Your task to perform on an android device: Add bose soundlink mini to the cart on amazon Image 0: 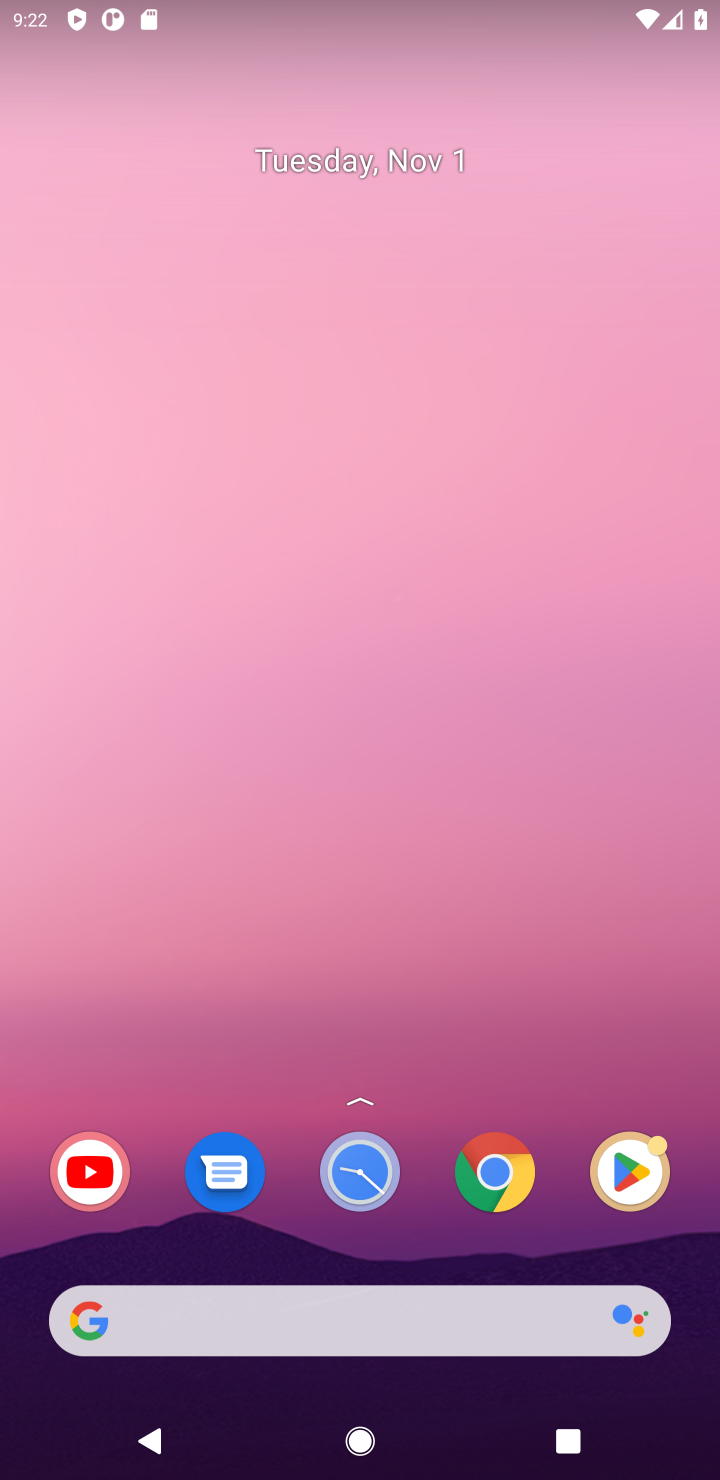
Step 0: press home button
Your task to perform on an android device: Add bose soundlink mini to the cart on amazon Image 1: 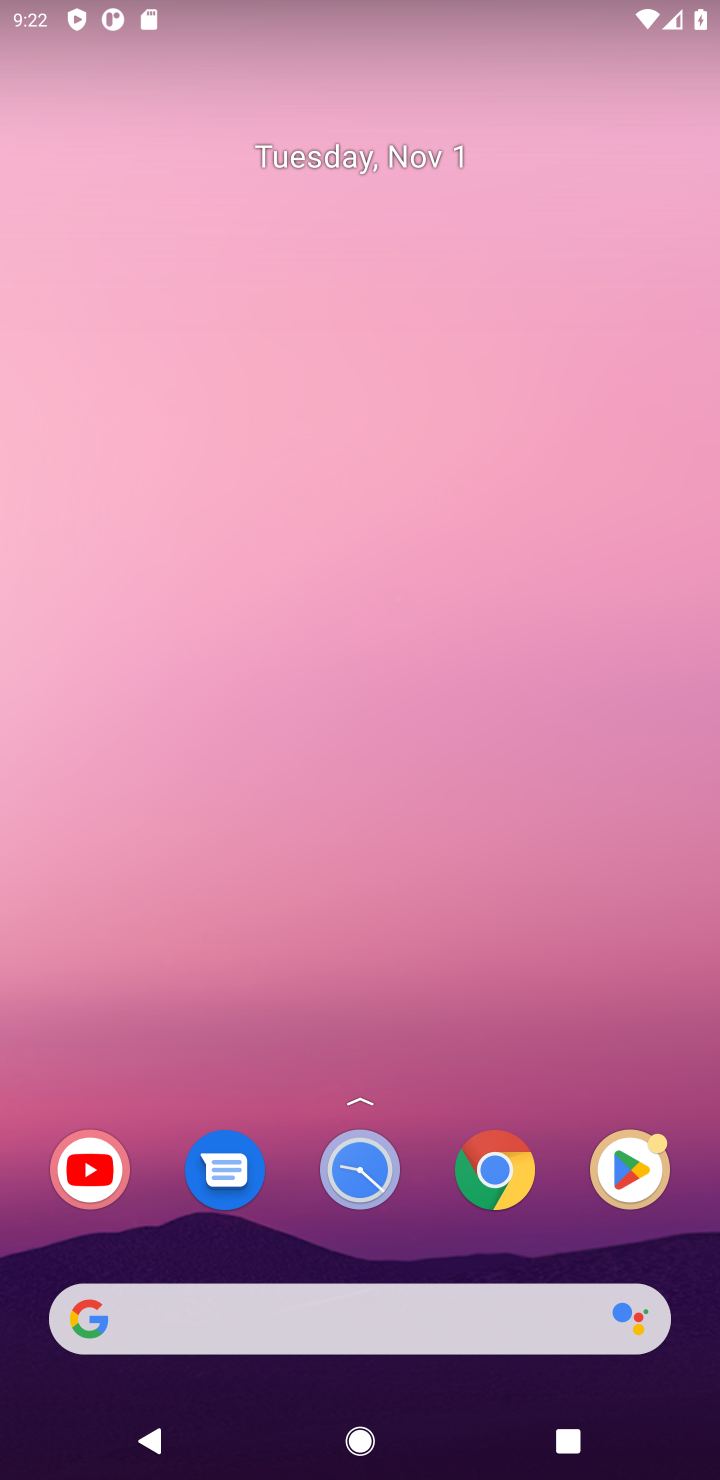
Step 1: drag from (419, 1114) to (438, 85)
Your task to perform on an android device: Add bose soundlink mini to the cart on amazon Image 2: 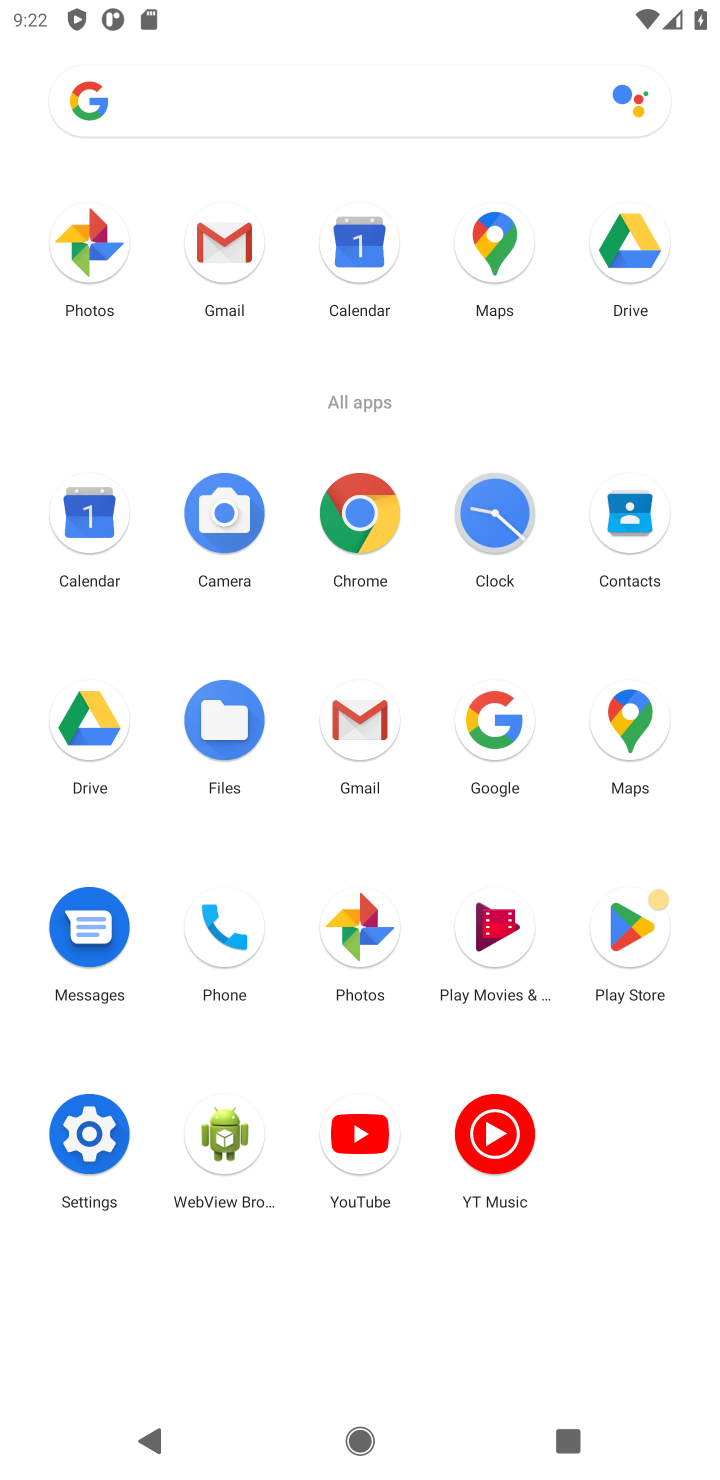
Step 2: click (362, 504)
Your task to perform on an android device: Add bose soundlink mini to the cart on amazon Image 3: 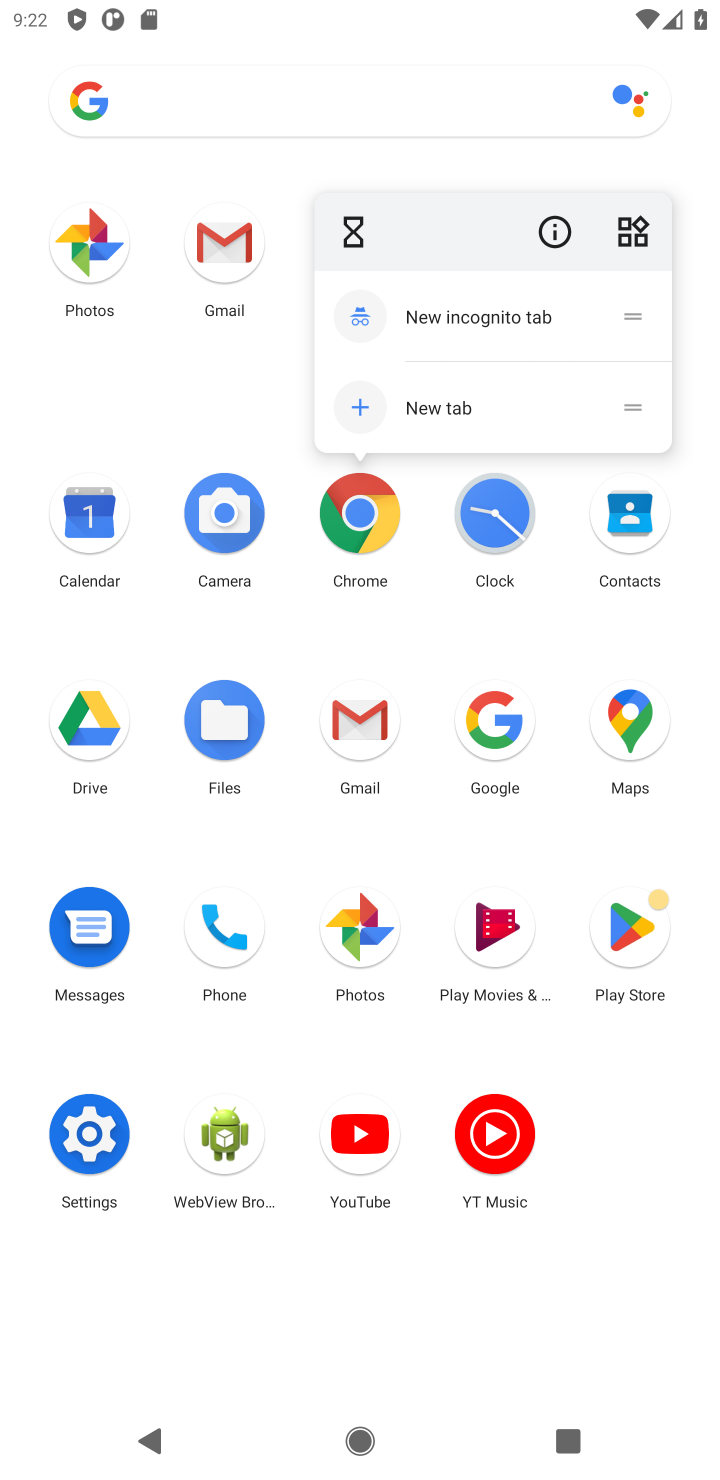
Step 3: click (357, 515)
Your task to perform on an android device: Add bose soundlink mini to the cart on amazon Image 4: 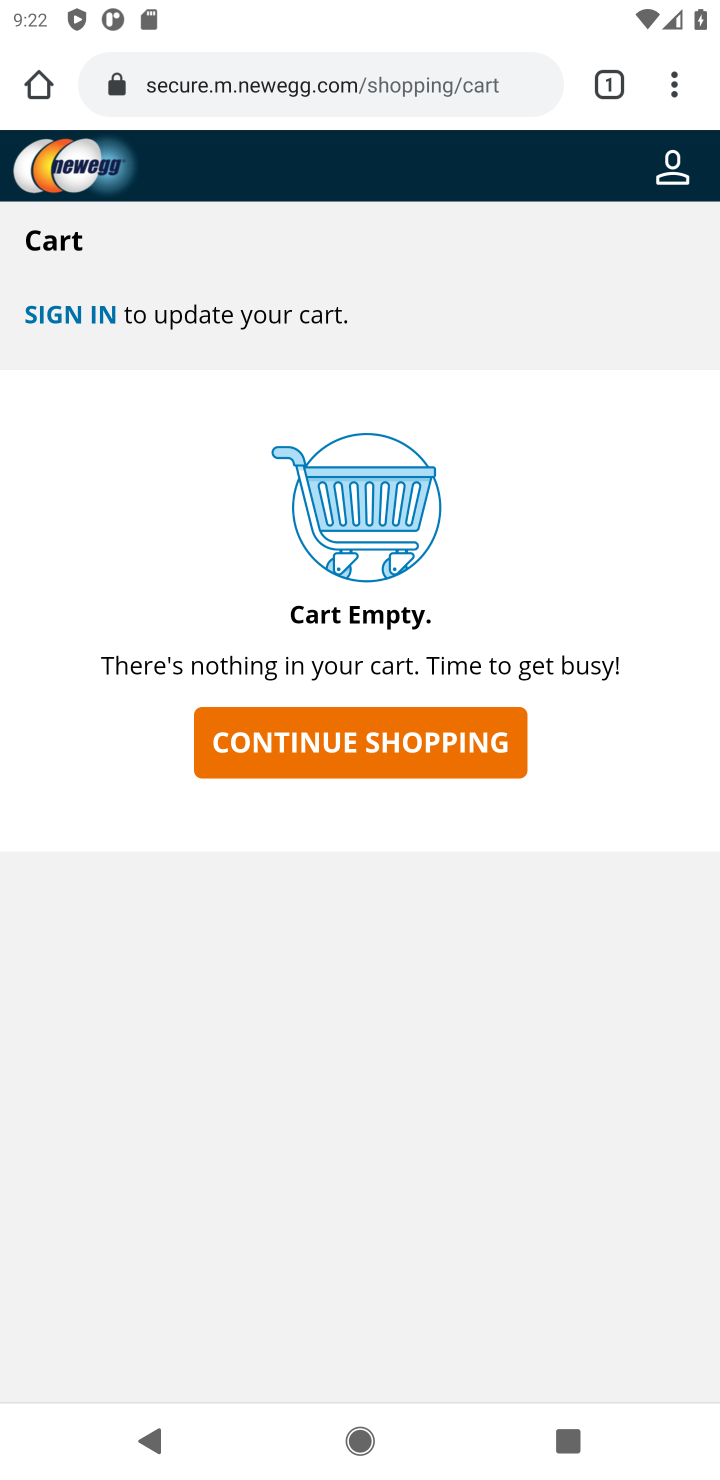
Step 4: click (316, 87)
Your task to perform on an android device: Add bose soundlink mini to the cart on amazon Image 5: 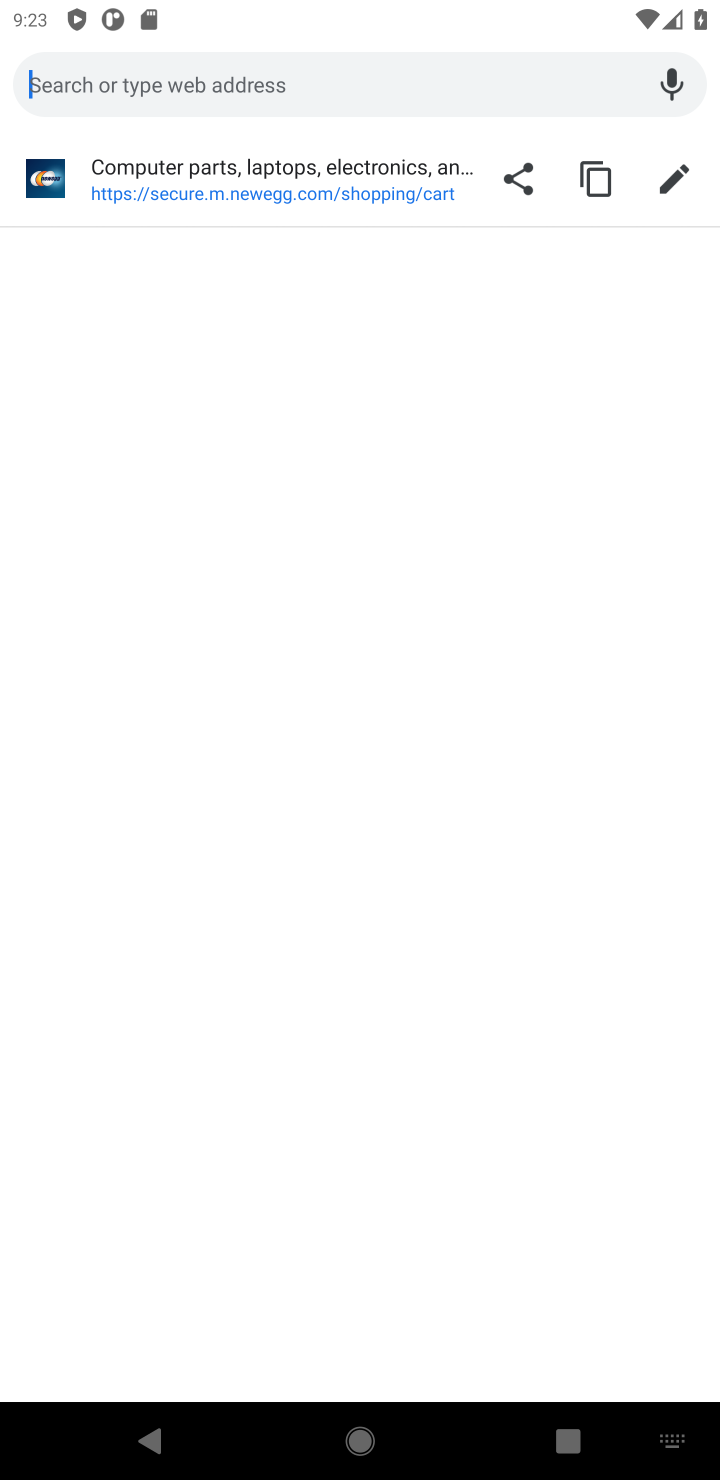
Step 5: type "amazon"
Your task to perform on an android device: Add bose soundlink mini to the cart on amazon Image 6: 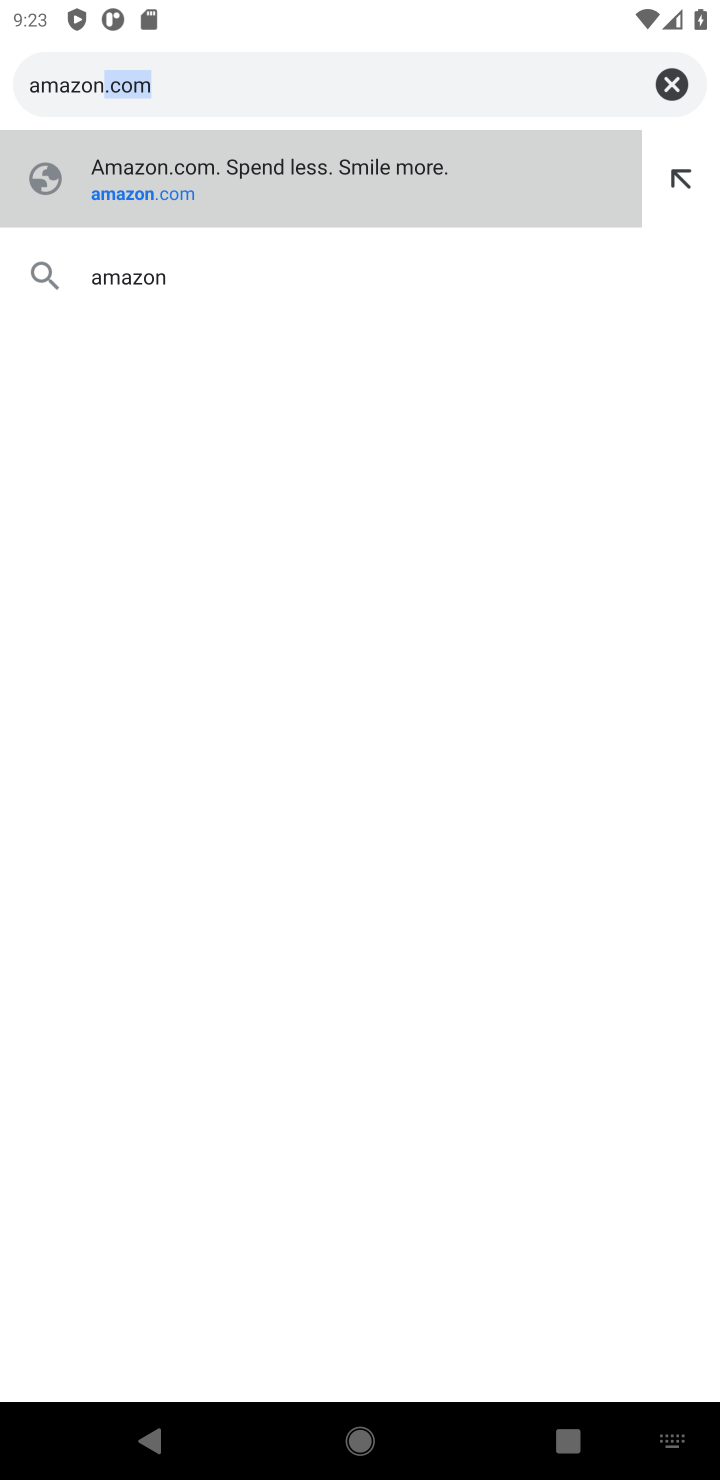
Step 6: click (231, 187)
Your task to perform on an android device: Add bose soundlink mini to the cart on amazon Image 7: 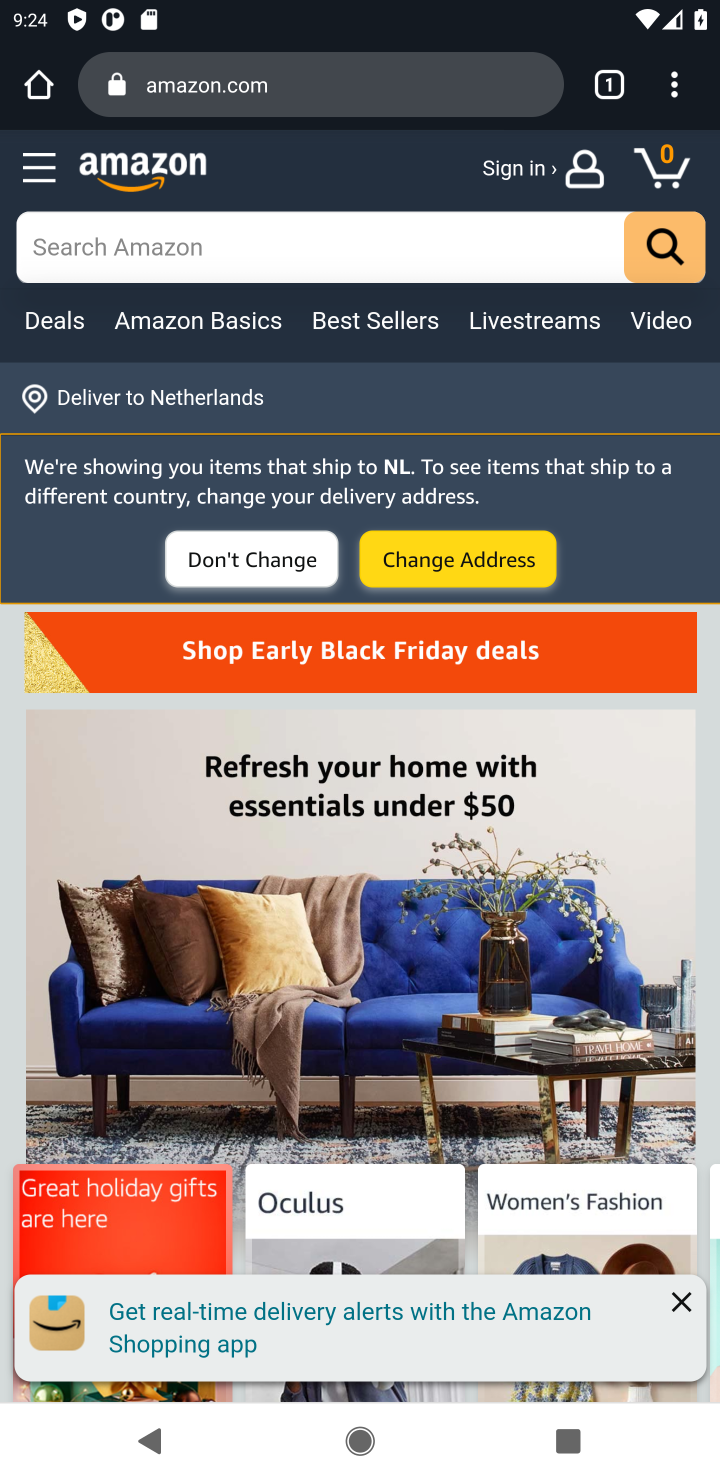
Step 7: click (244, 558)
Your task to perform on an android device: Add bose soundlink mini to the cart on amazon Image 8: 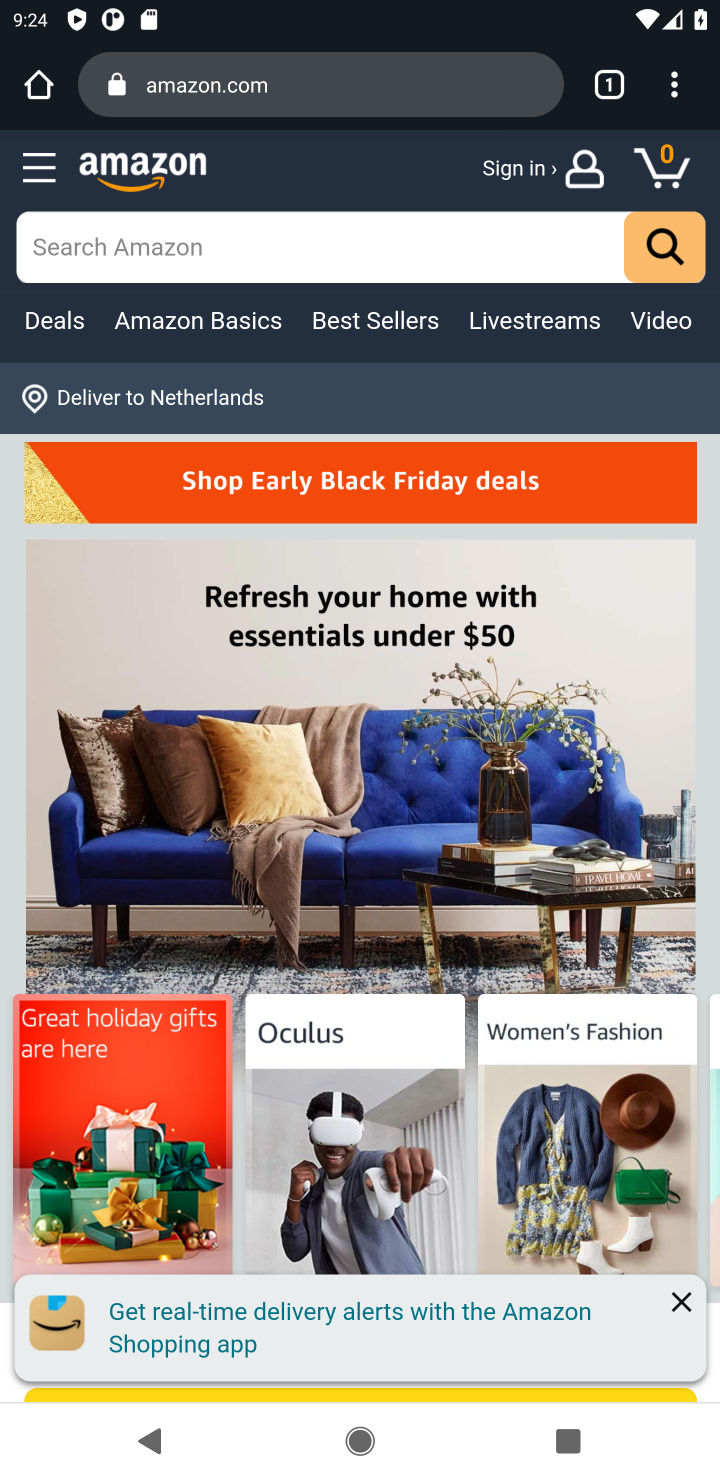
Step 8: click (197, 239)
Your task to perform on an android device: Add bose soundlink mini to the cart on amazon Image 9: 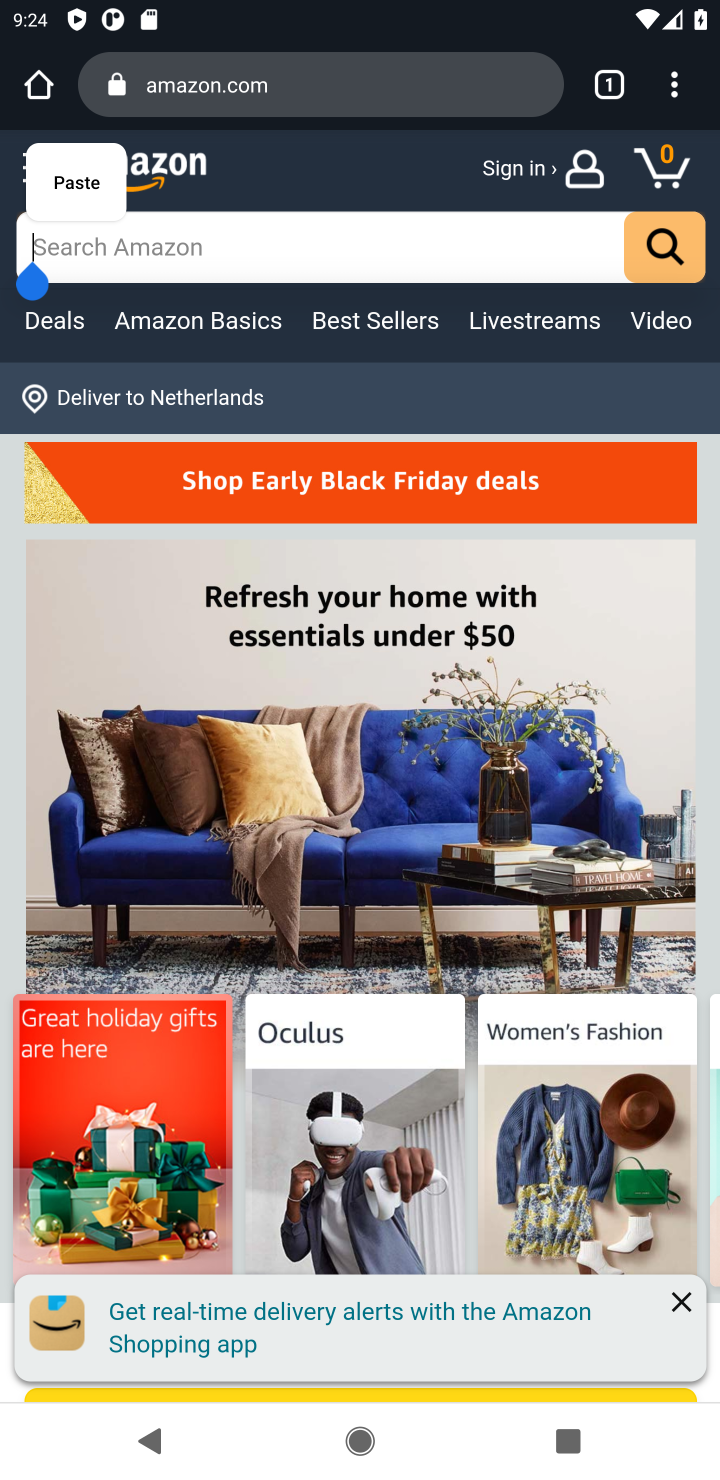
Step 9: type "bose soundlink mini"
Your task to perform on an android device: Add bose soundlink mini to the cart on amazon Image 10: 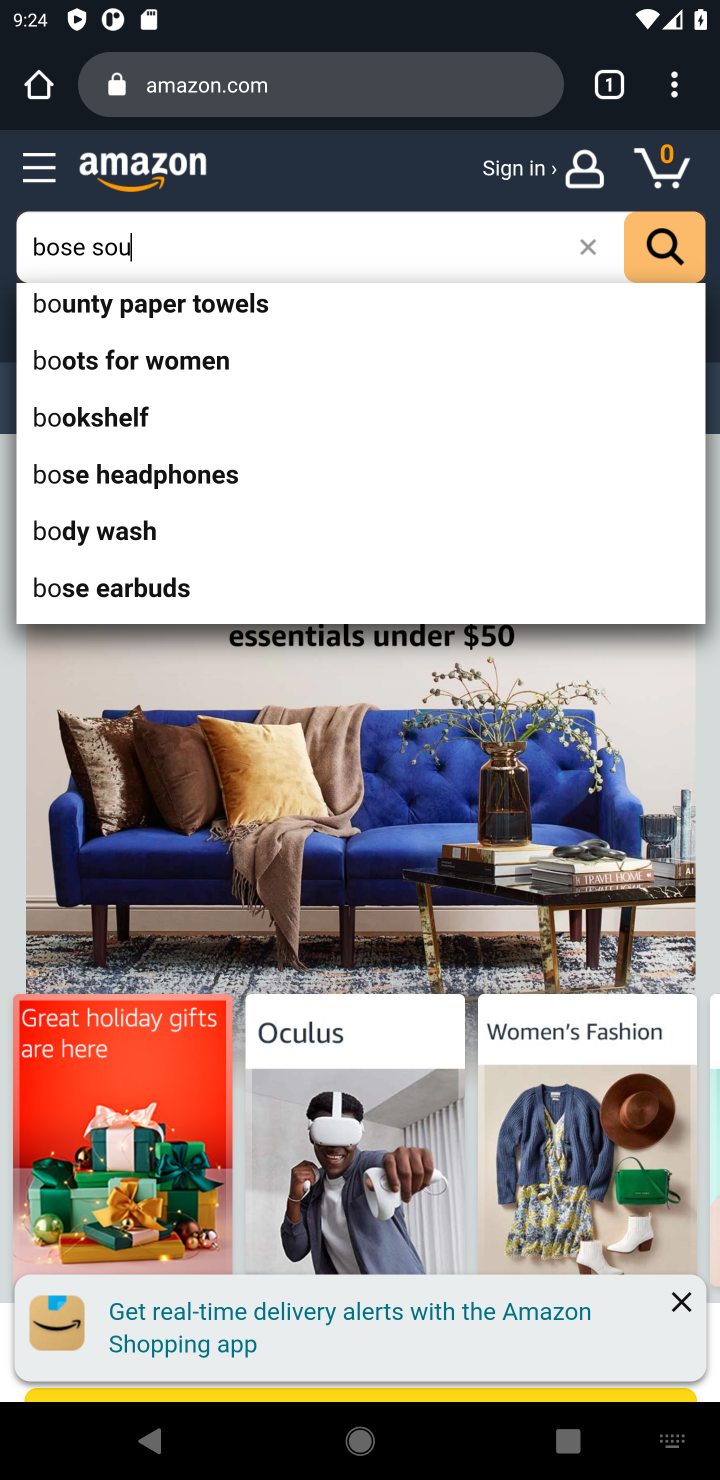
Step 10: type ""
Your task to perform on an android device: Add bose soundlink mini to the cart on amazon Image 11: 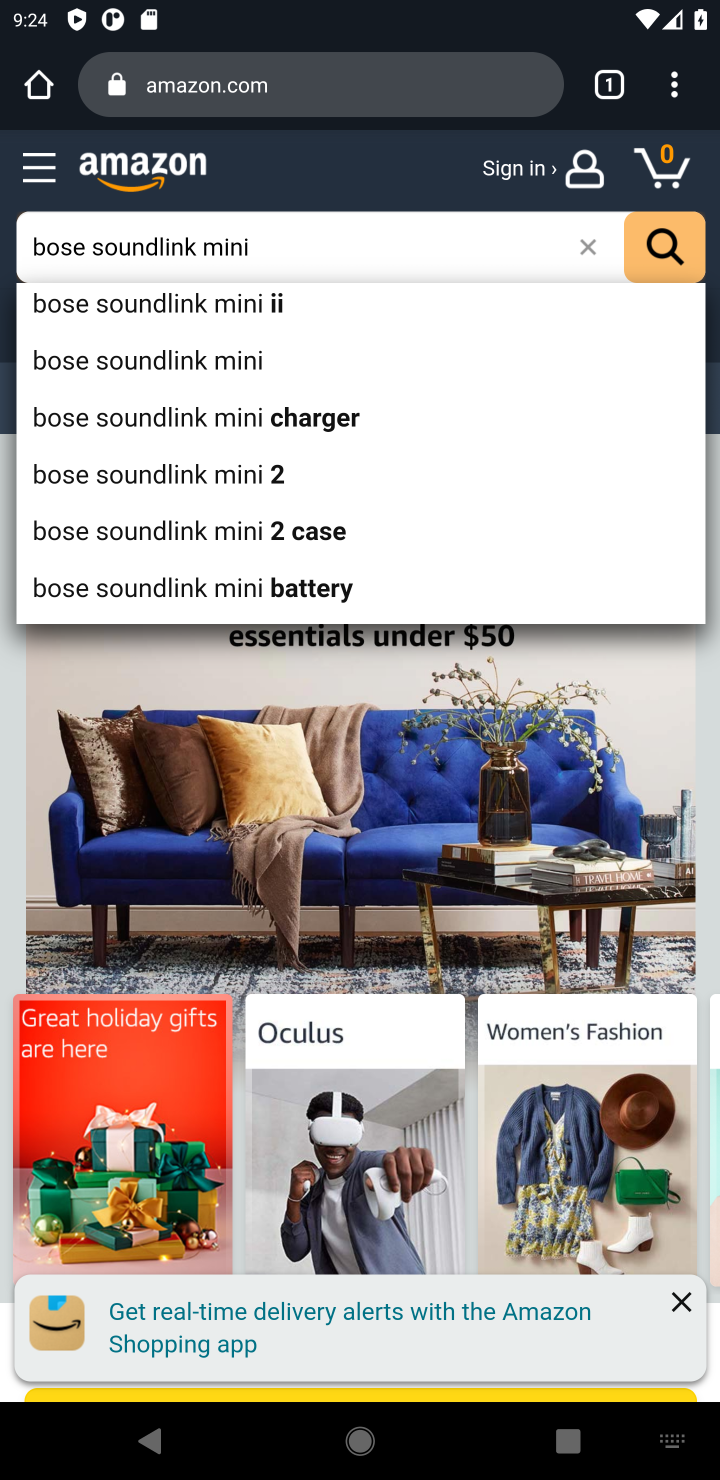
Step 11: click (269, 373)
Your task to perform on an android device: Add bose soundlink mini to the cart on amazon Image 12: 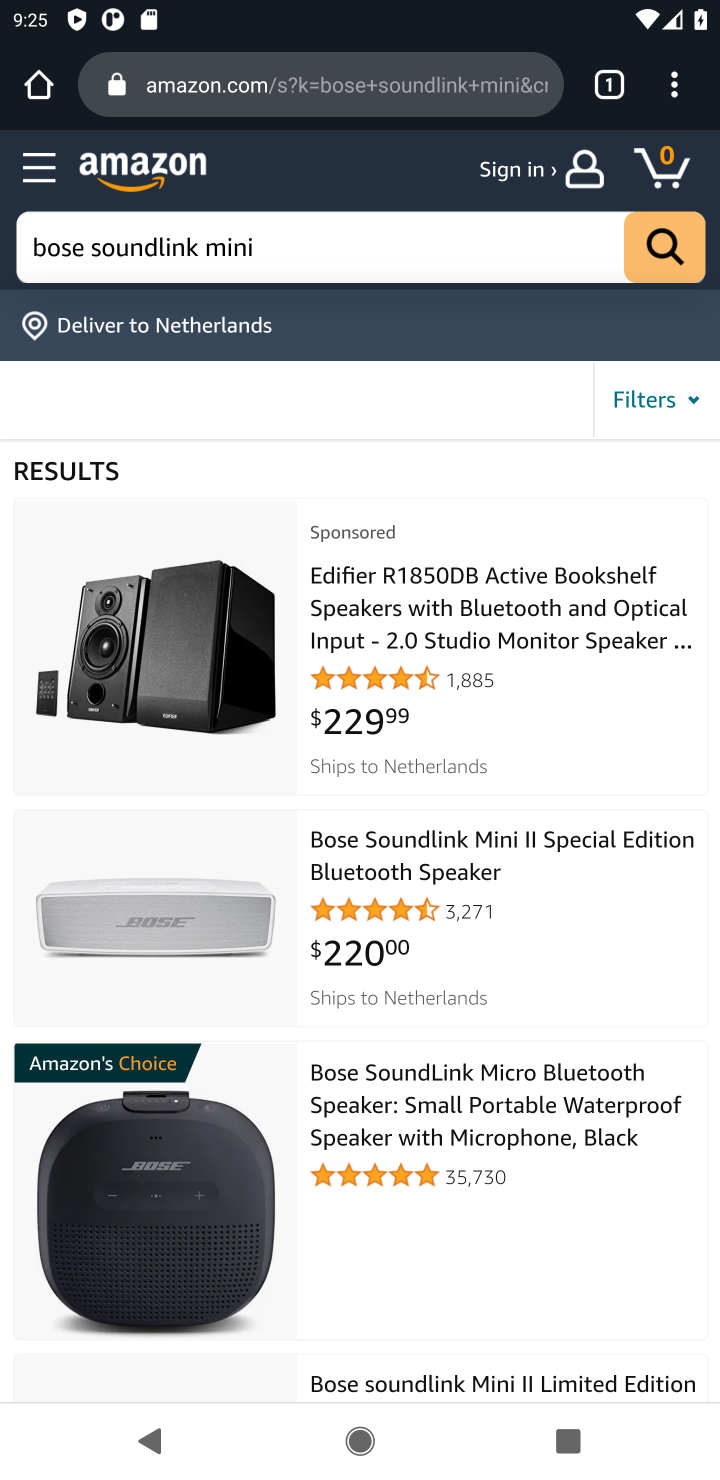
Step 12: click (390, 1107)
Your task to perform on an android device: Add bose soundlink mini to the cart on amazon Image 13: 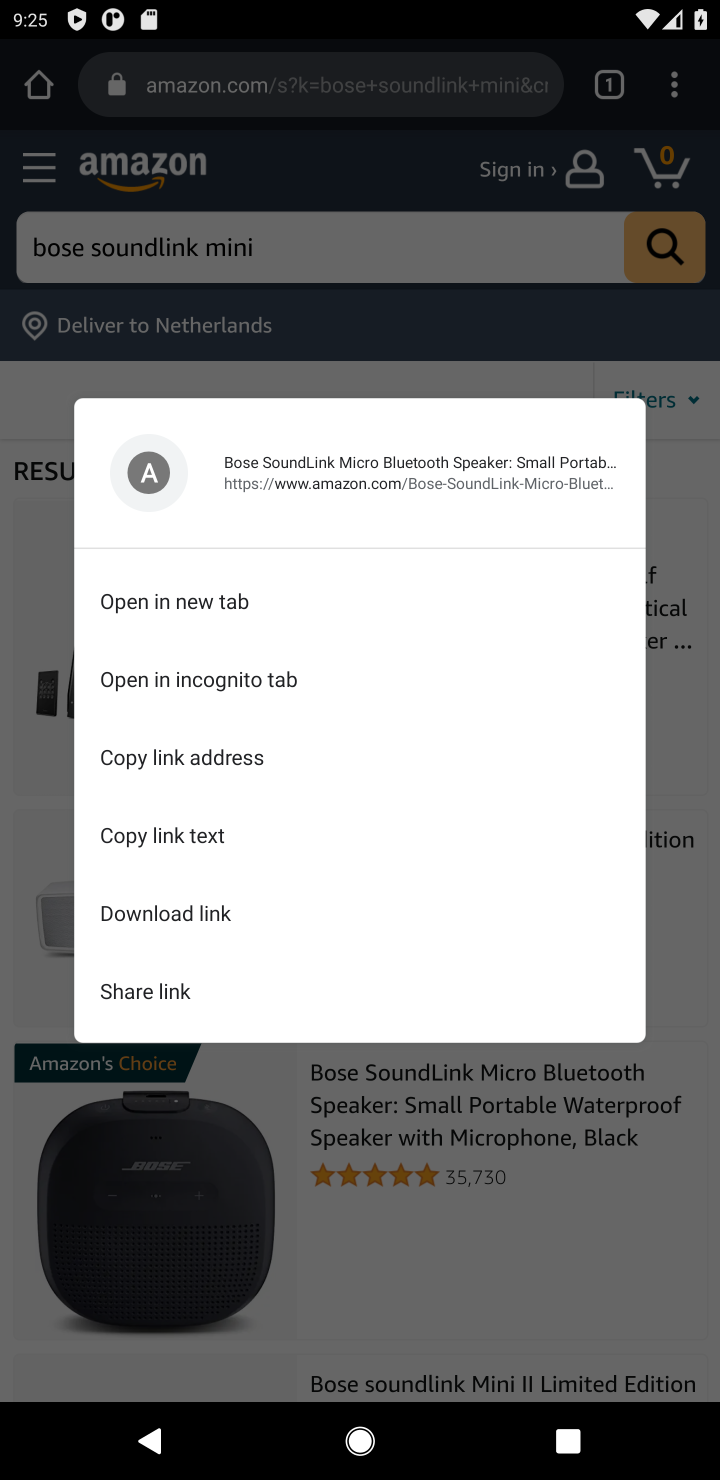
Step 13: click (414, 1183)
Your task to perform on an android device: Add bose soundlink mini to the cart on amazon Image 14: 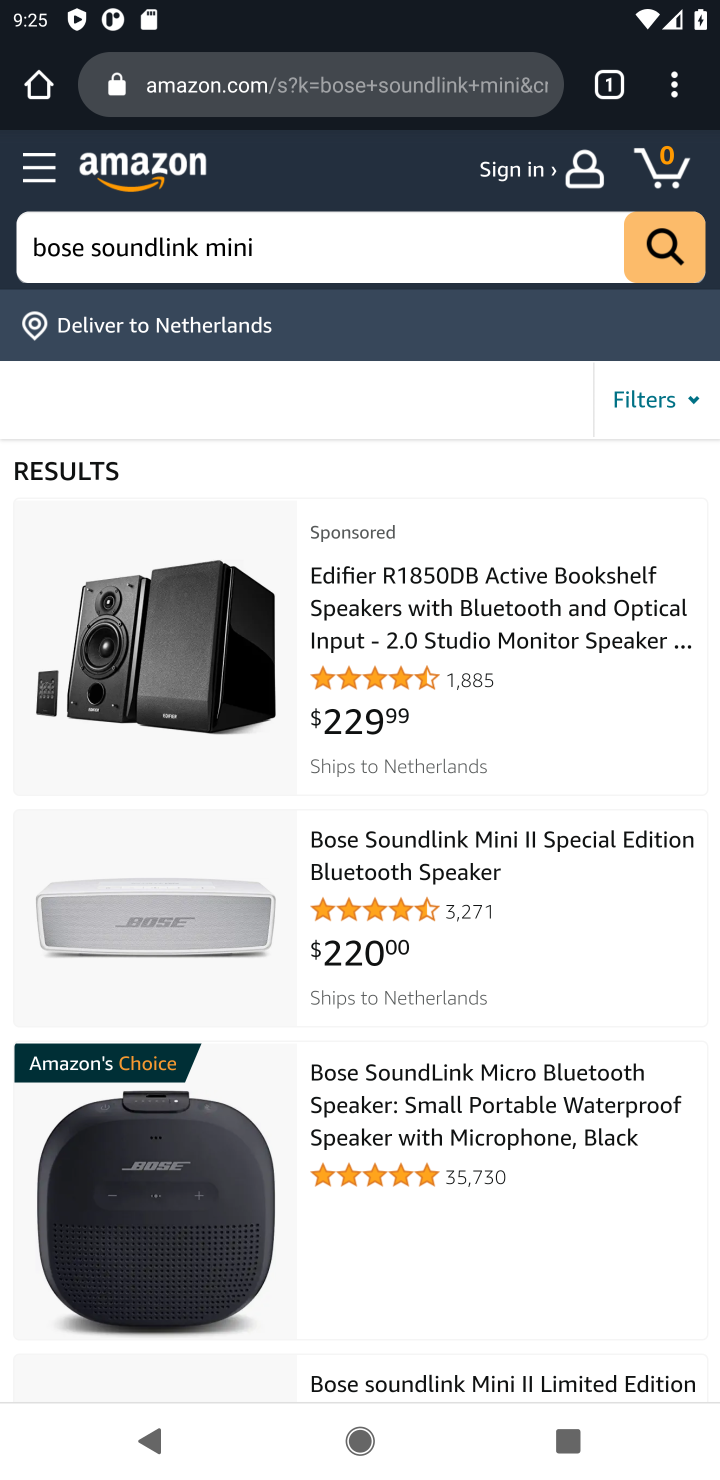
Step 14: click (388, 1097)
Your task to perform on an android device: Add bose soundlink mini to the cart on amazon Image 15: 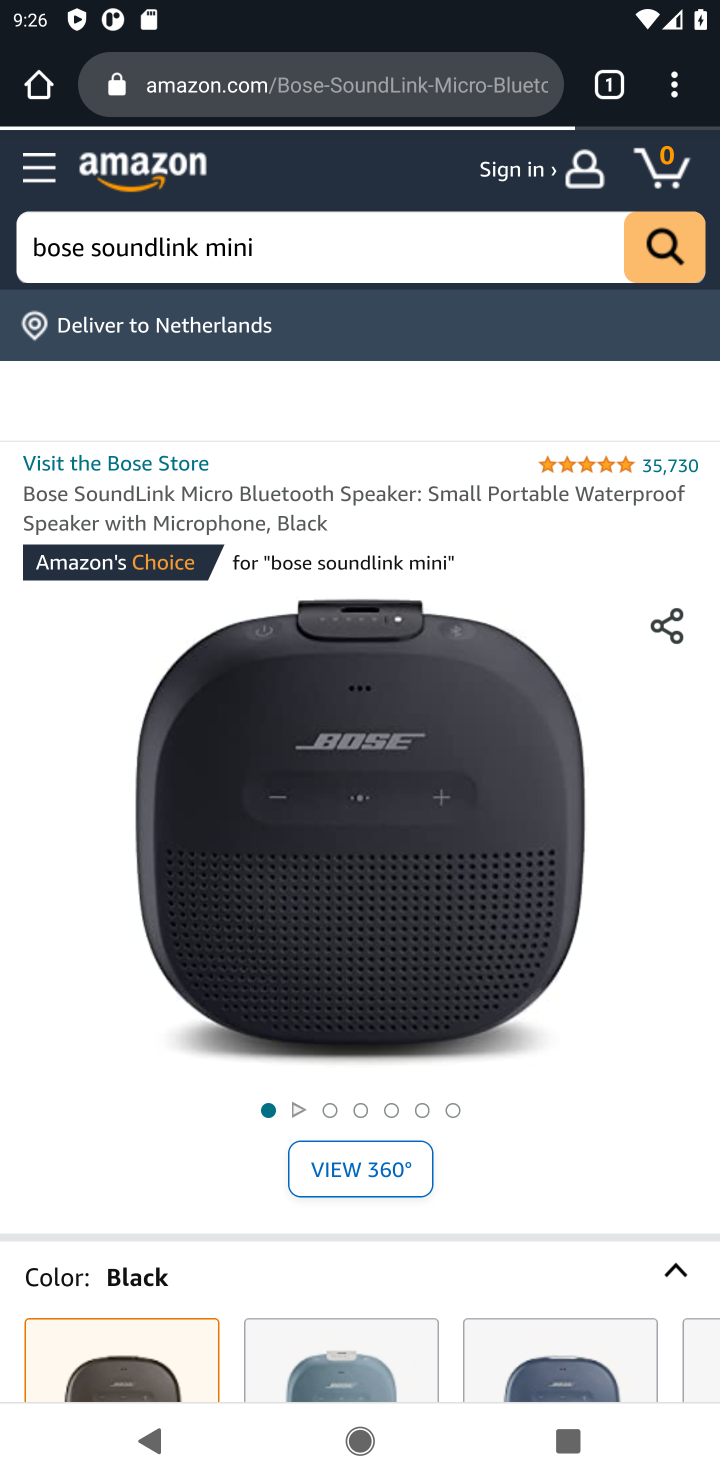
Step 15: drag from (471, 1267) to (434, 461)
Your task to perform on an android device: Add bose soundlink mini to the cart on amazon Image 16: 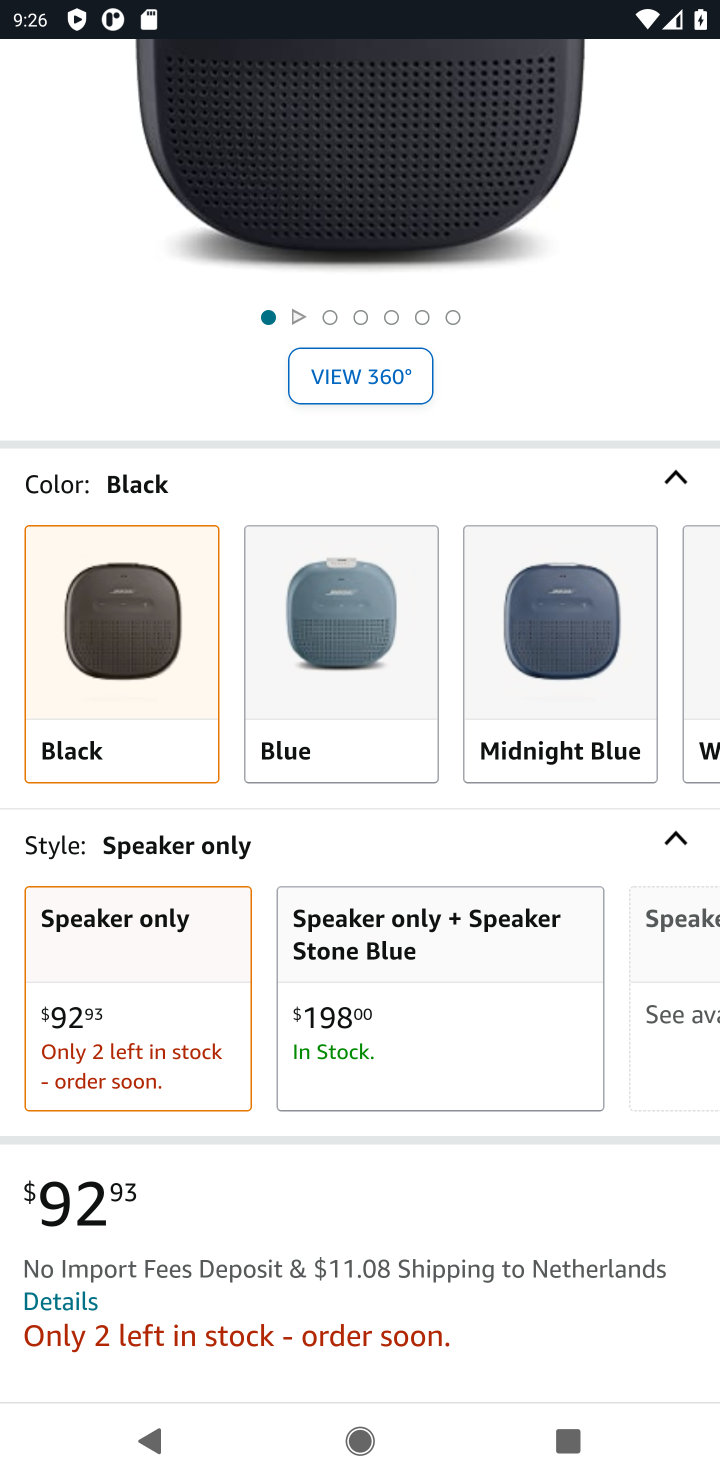
Step 16: drag from (420, 1296) to (438, 460)
Your task to perform on an android device: Add bose soundlink mini to the cart on amazon Image 17: 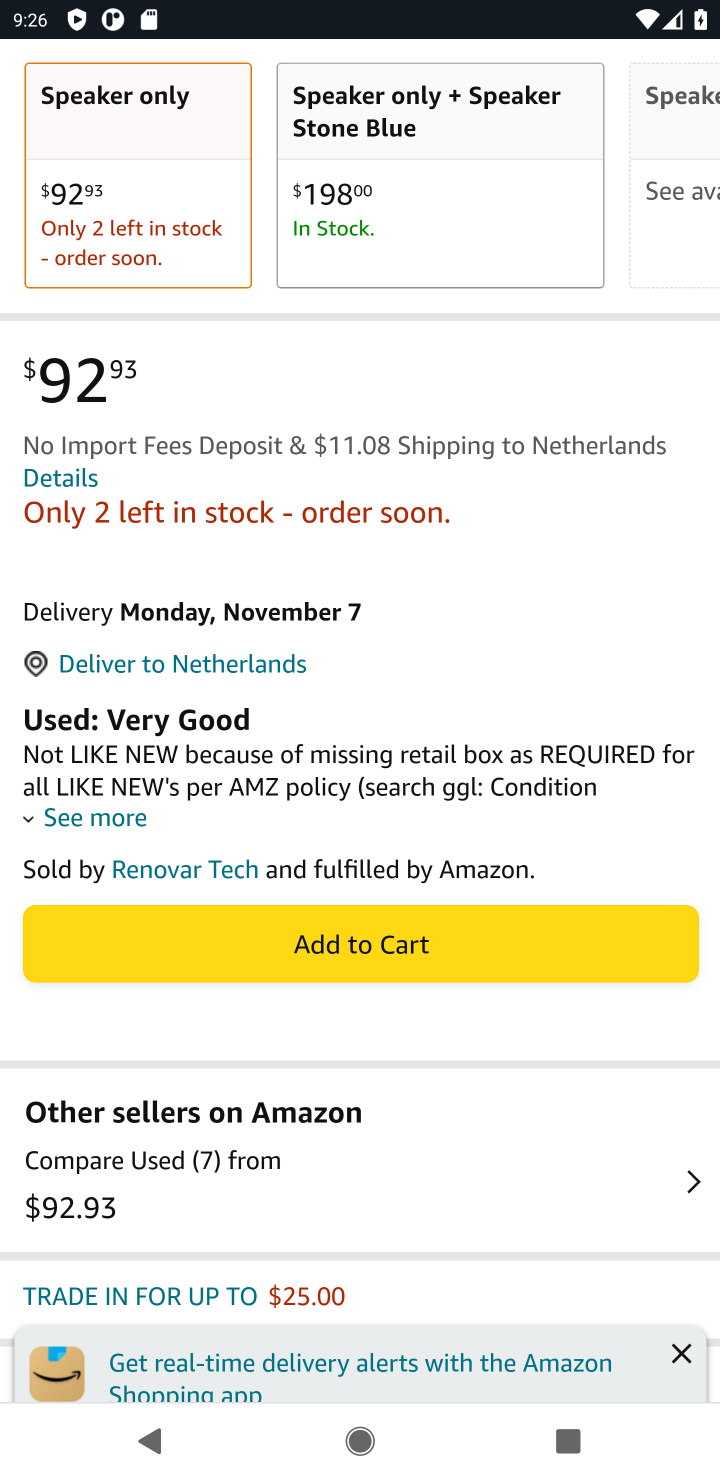
Step 17: click (375, 947)
Your task to perform on an android device: Add bose soundlink mini to the cart on amazon Image 18: 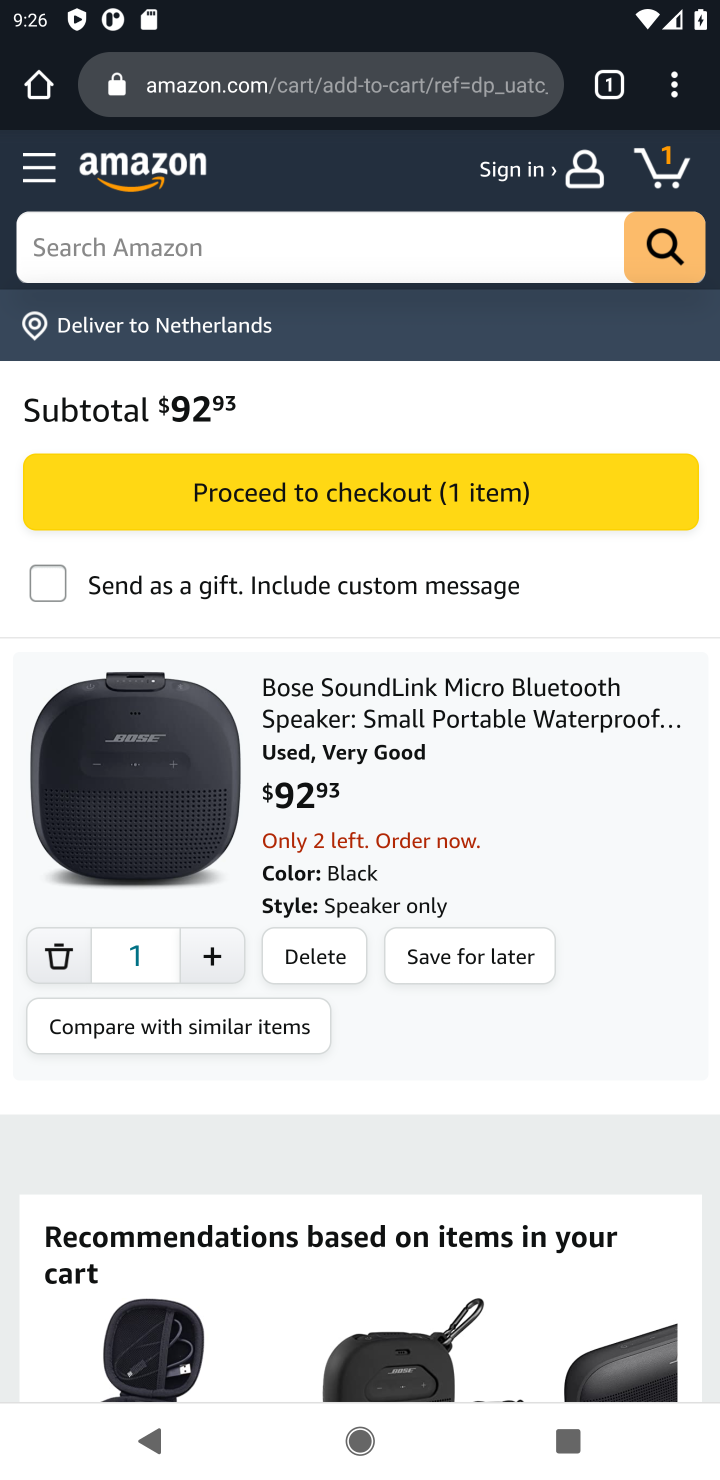
Step 18: task complete